Your task to perform on an android device: Do I have any events this weekend? Image 0: 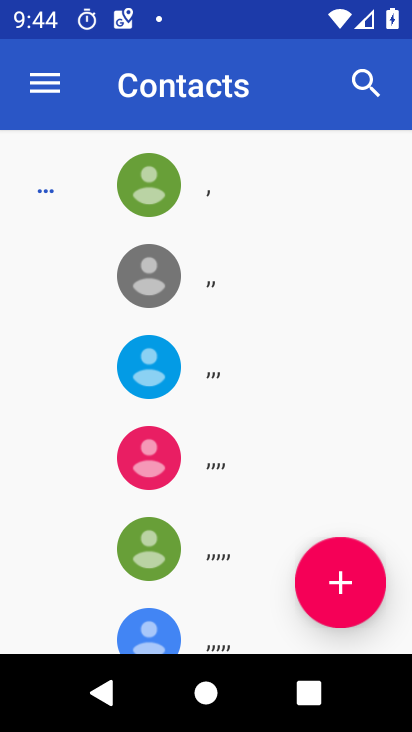
Step 0: press home button
Your task to perform on an android device: Do I have any events this weekend? Image 1: 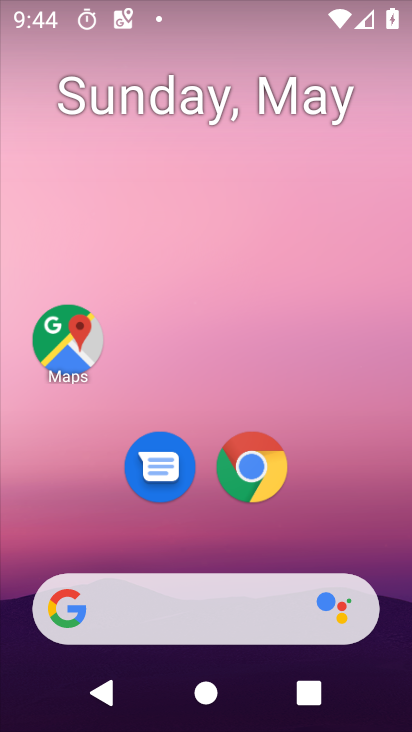
Step 1: drag from (220, 525) to (224, 202)
Your task to perform on an android device: Do I have any events this weekend? Image 2: 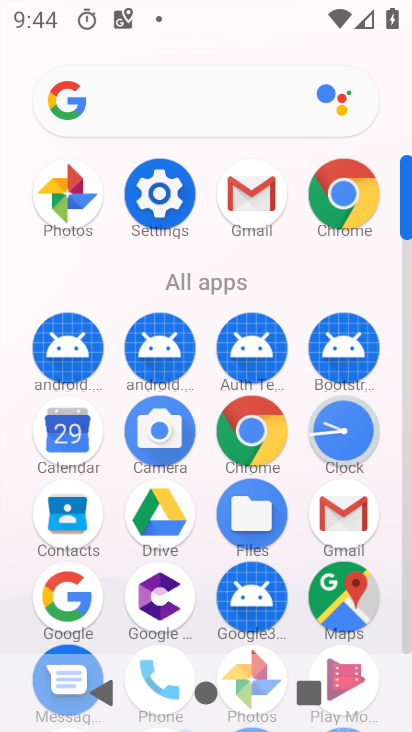
Step 2: click (164, 186)
Your task to perform on an android device: Do I have any events this weekend? Image 3: 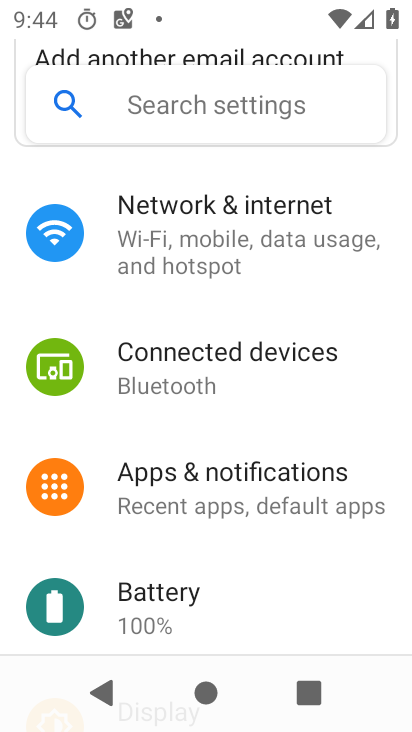
Step 3: press home button
Your task to perform on an android device: Do I have any events this weekend? Image 4: 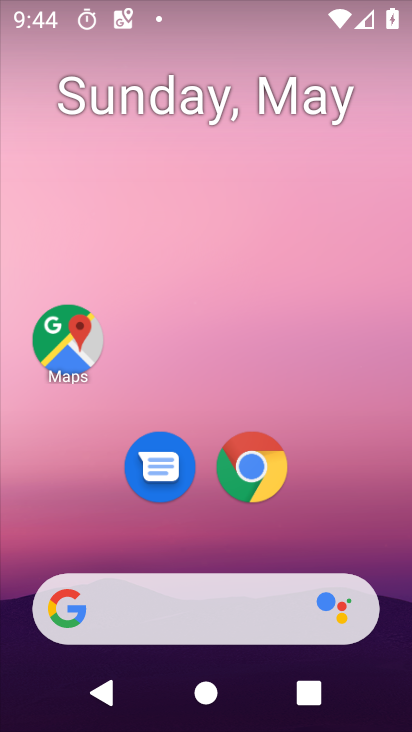
Step 4: drag from (203, 547) to (207, 228)
Your task to perform on an android device: Do I have any events this weekend? Image 5: 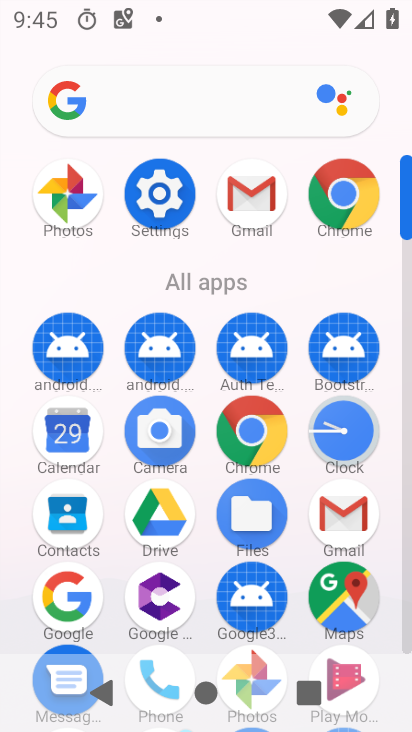
Step 5: click (66, 434)
Your task to perform on an android device: Do I have any events this weekend? Image 6: 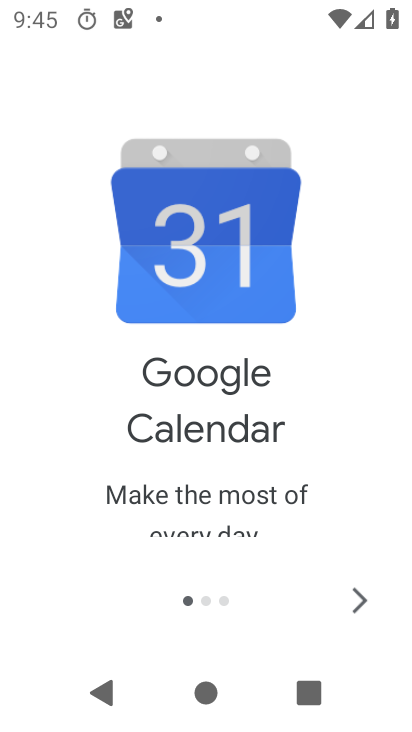
Step 6: click (356, 599)
Your task to perform on an android device: Do I have any events this weekend? Image 7: 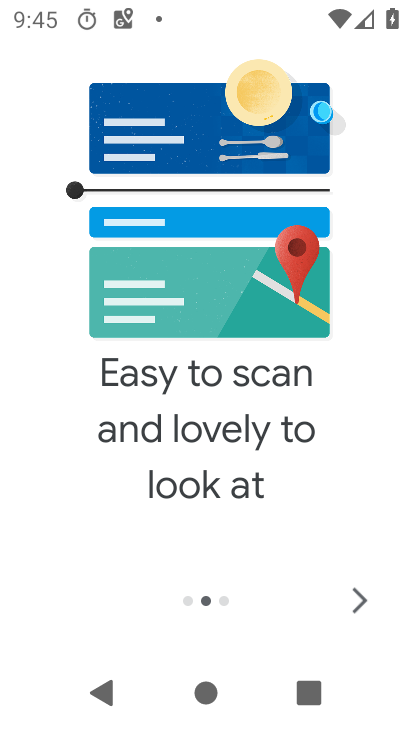
Step 7: click (356, 599)
Your task to perform on an android device: Do I have any events this weekend? Image 8: 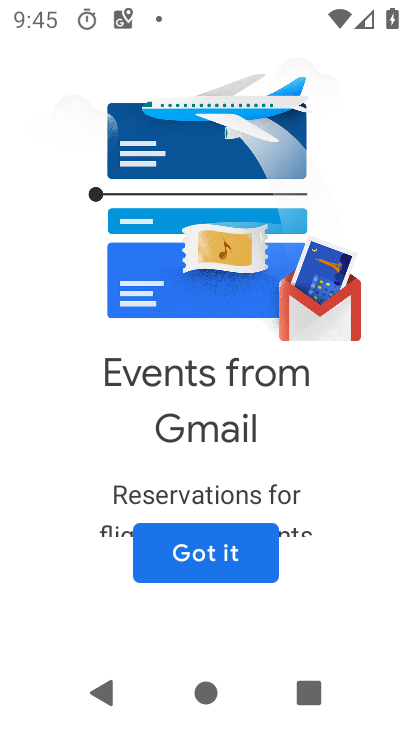
Step 8: click (237, 565)
Your task to perform on an android device: Do I have any events this weekend? Image 9: 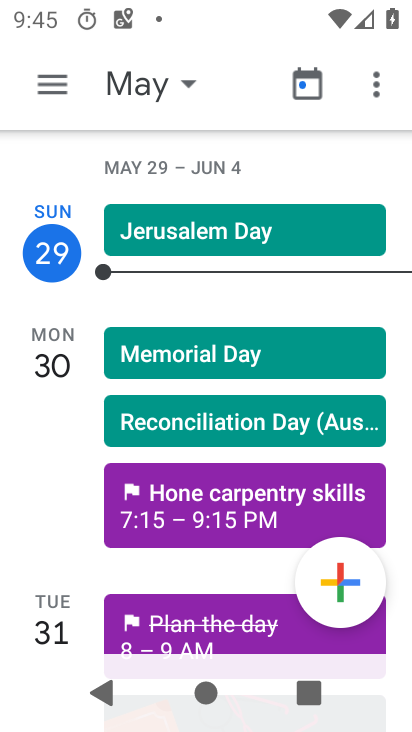
Step 9: click (164, 83)
Your task to perform on an android device: Do I have any events this weekend? Image 10: 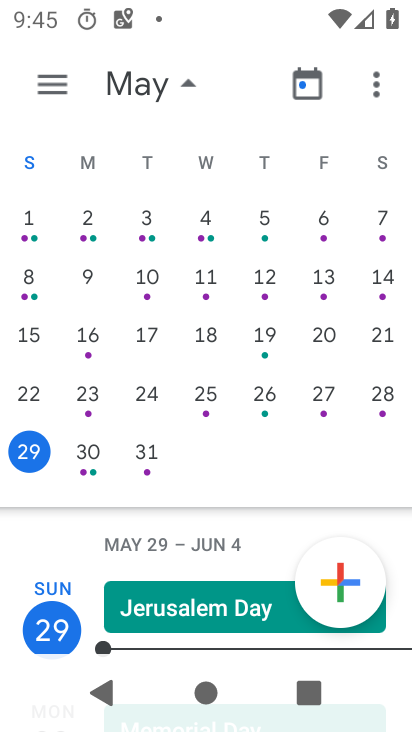
Step 10: drag from (260, 369) to (40, 354)
Your task to perform on an android device: Do I have any events this weekend? Image 11: 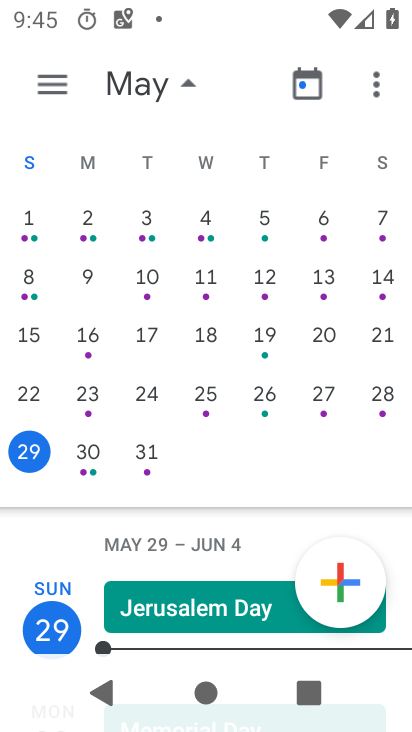
Step 11: drag from (351, 299) to (0, 320)
Your task to perform on an android device: Do I have any events this weekend? Image 12: 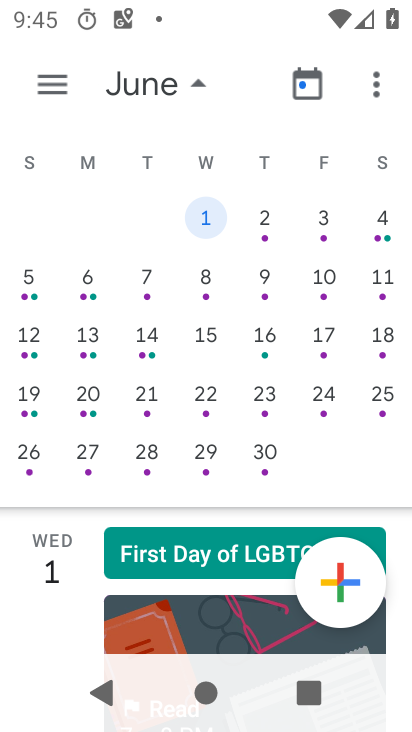
Step 12: click (373, 219)
Your task to perform on an android device: Do I have any events this weekend? Image 13: 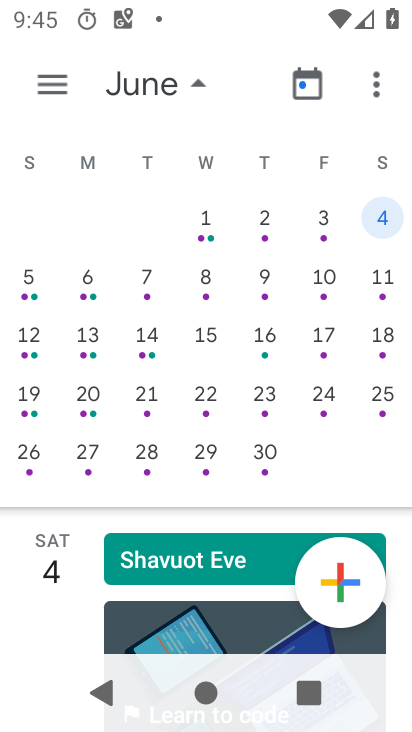
Step 13: task complete